Your task to perform on an android device: turn off sleep mode Image 0: 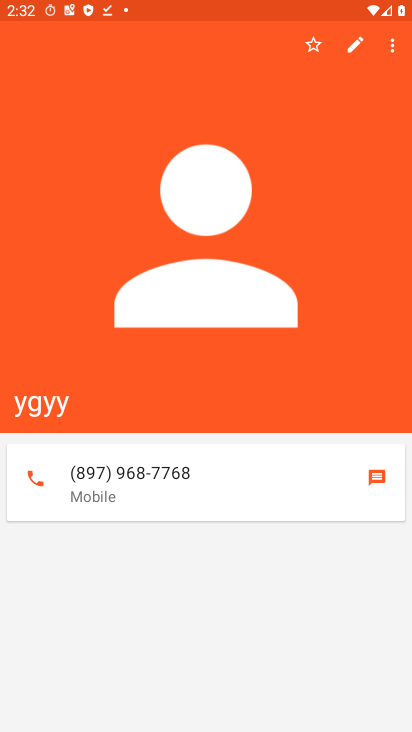
Step 0: press home button
Your task to perform on an android device: turn off sleep mode Image 1: 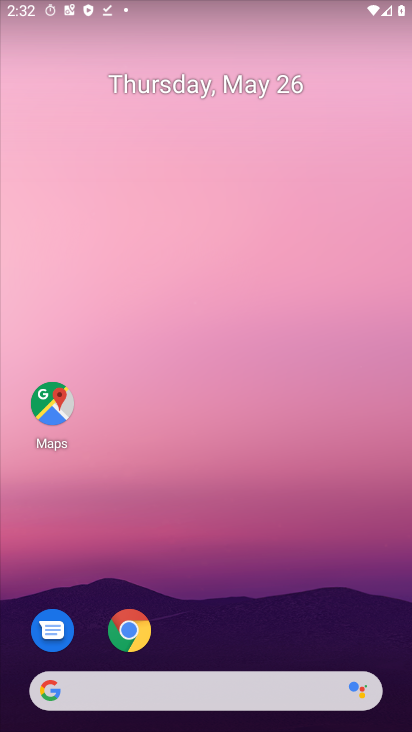
Step 1: drag from (238, 632) to (310, 4)
Your task to perform on an android device: turn off sleep mode Image 2: 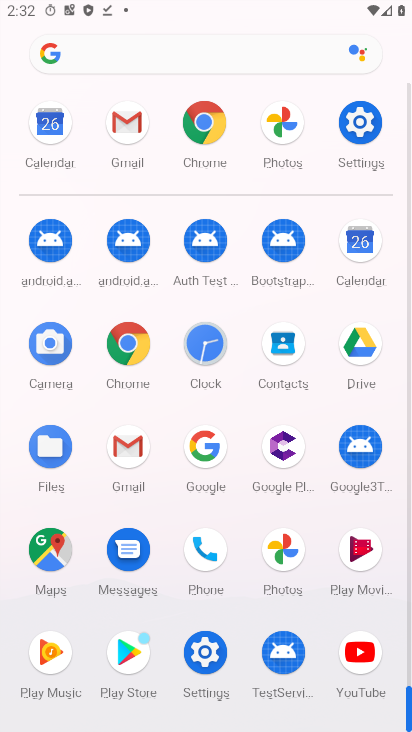
Step 2: click (375, 95)
Your task to perform on an android device: turn off sleep mode Image 3: 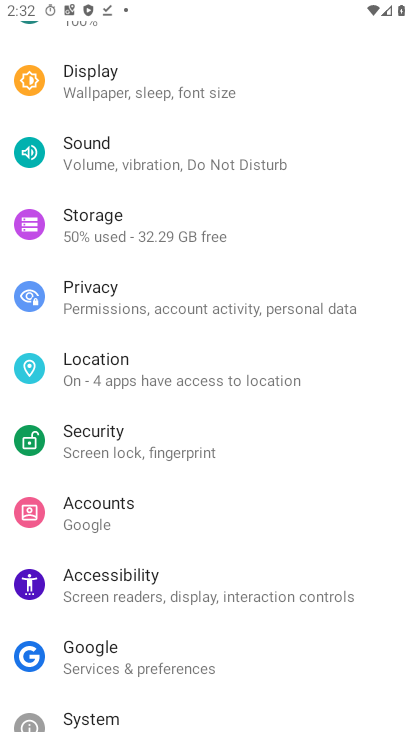
Step 3: task complete